Your task to perform on an android device: Search for Italian restaurants on Maps Image 0: 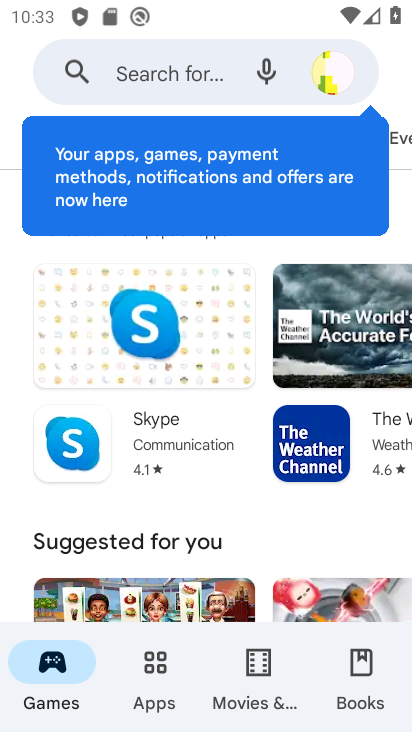
Step 0: press back button
Your task to perform on an android device: Search for Italian restaurants on Maps Image 1: 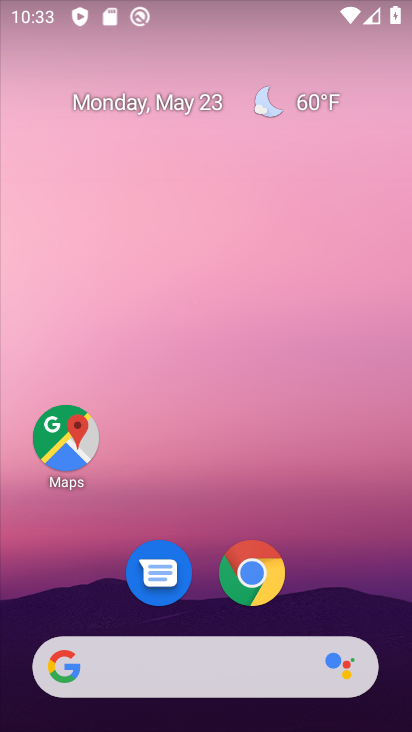
Step 1: drag from (327, 560) to (249, 16)
Your task to perform on an android device: Search for Italian restaurants on Maps Image 2: 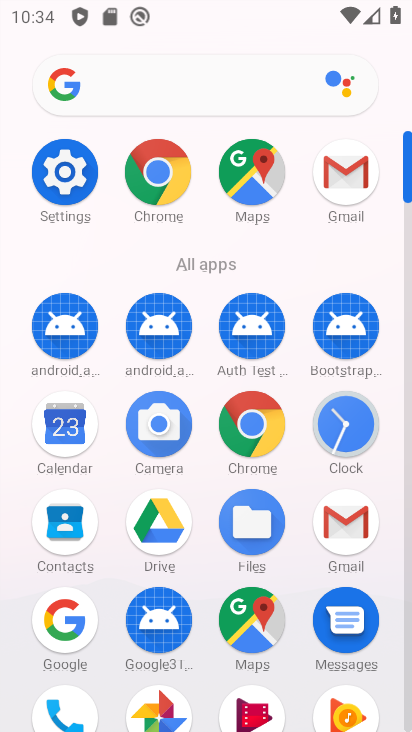
Step 2: click (252, 160)
Your task to perform on an android device: Search for Italian restaurants on Maps Image 3: 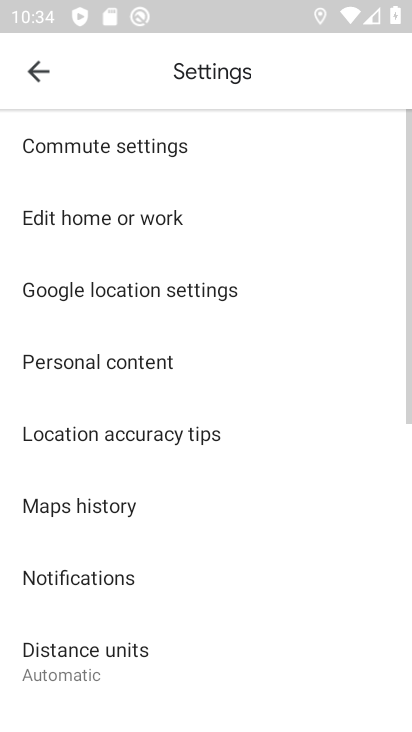
Step 3: click (58, 70)
Your task to perform on an android device: Search for Italian restaurants on Maps Image 4: 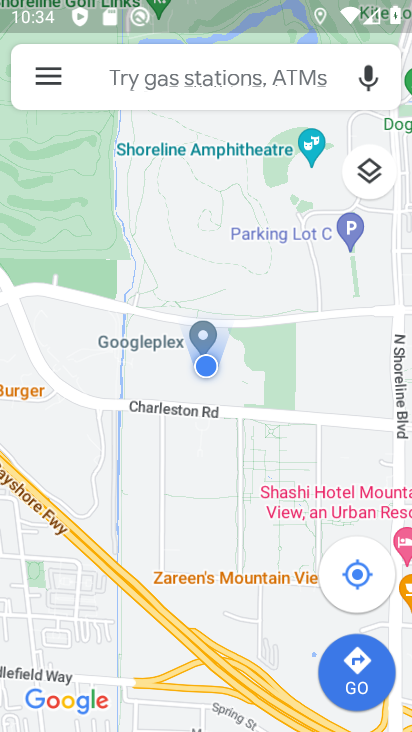
Step 4: click (226, 78)
Your task to perform on an android device: Search for Italian restaurants on Maps Image 5: 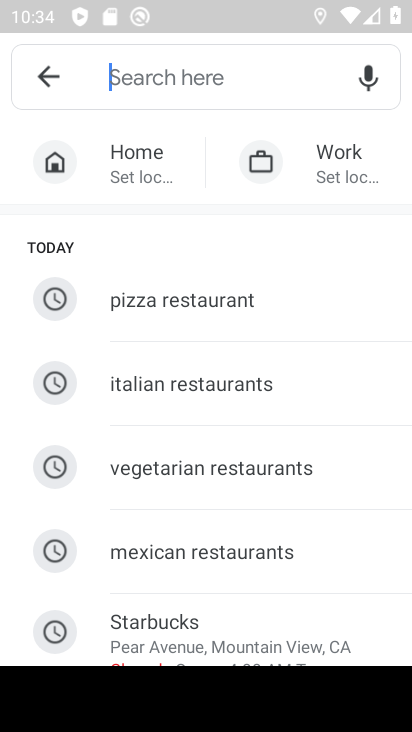
Step 5: click (237, 380)
Your task to perform on an android device: Search for Italian restaurants on Maps Image 6: 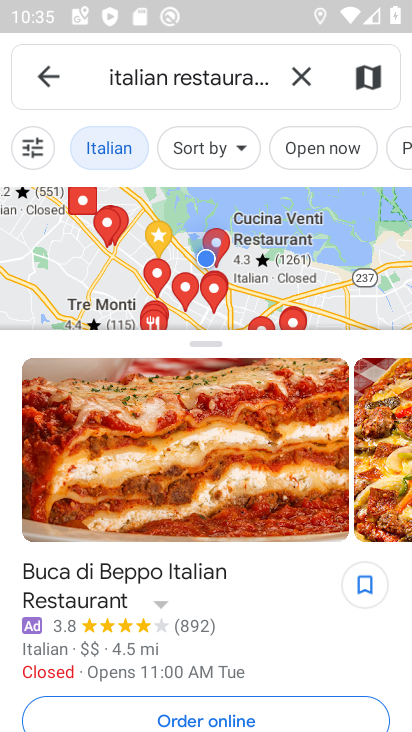
Step 6: task complete